Your task to perform on an android device: empty trash in google photos Image 0: 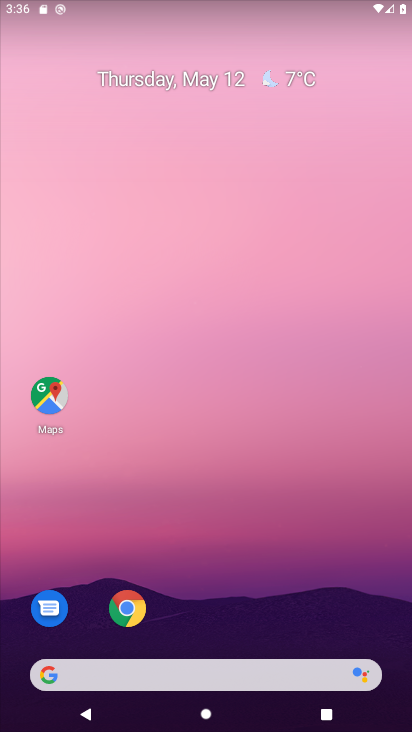
Step 0: drag from (268, 498) to (252, 42)
Your task to perform on an android device: empty trash in google photos Image 1: 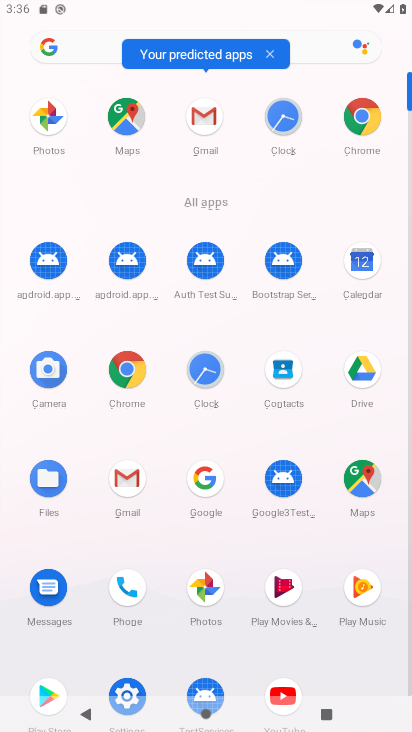
Step 1: click (44, 111)
Your task to perform on an android device: empty trash in google photos Image 2: 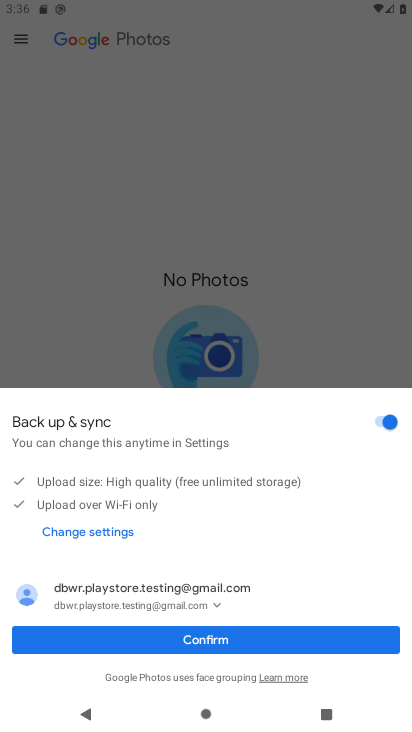
Step 2: click (312, 643)
Your task to perform on an android device: empty trash in google photos Image 3: 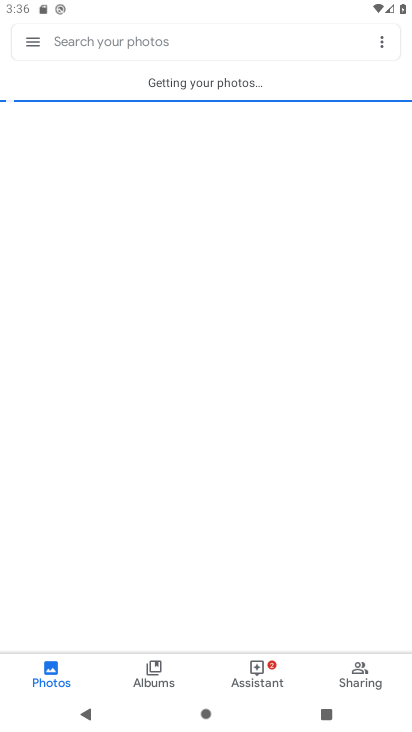
Step 3: click (26, 32)
Your task to perform on an android device: empty trash in google photos Image 4: 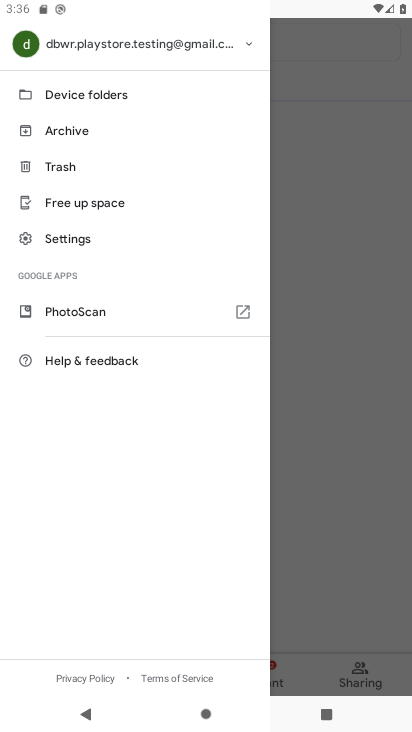
Step 4: click (79, 162)
Your task to perform on an android device: empty trash in google photos Image 5: 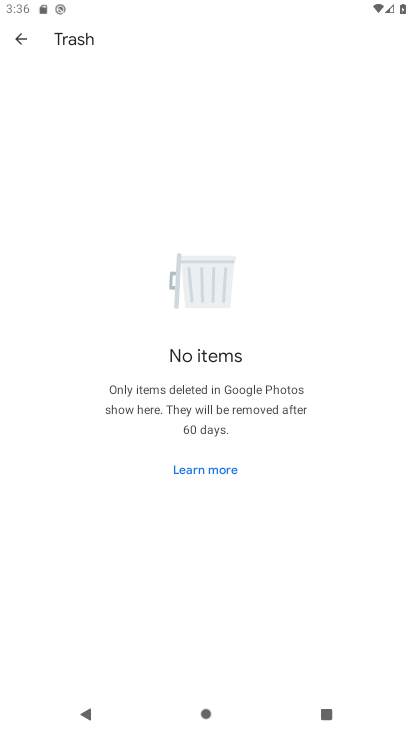
Step 5: task complete